Your task to perform on an android device: check battery use Image 0: 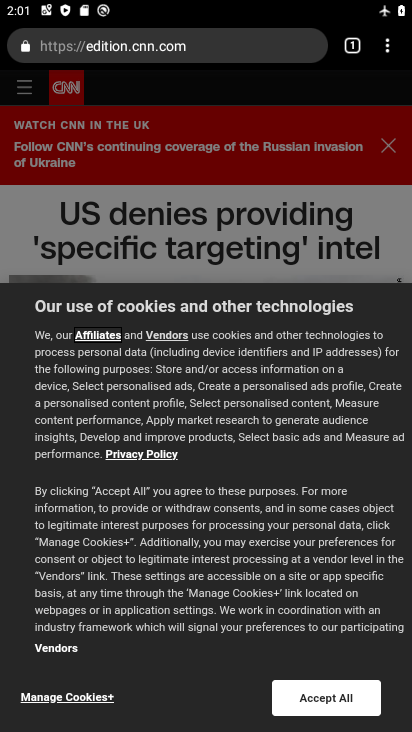
Step 0: press home button
Your task to perform on an android device: check battery use Image 1: 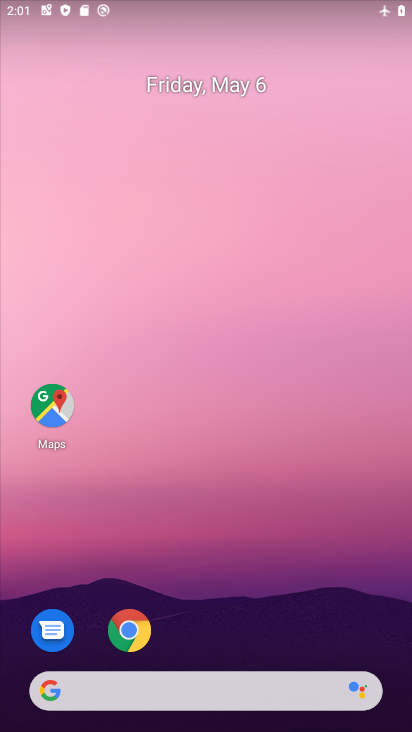
Step 1: drag from (220, 714) to (234, 113)
Your task to perform on an android device: check battery use Image 2: 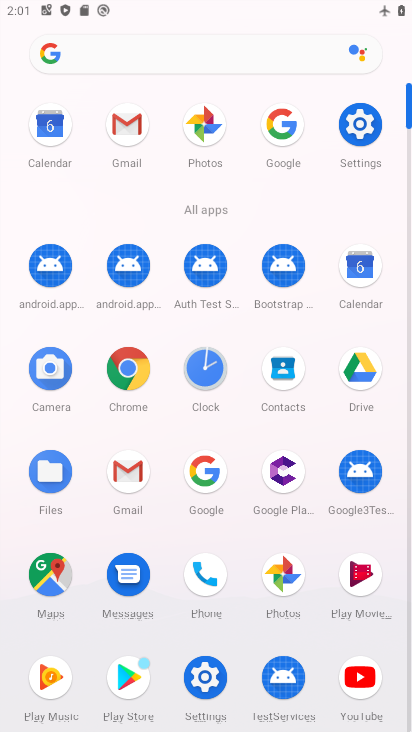
Step 2: click (356, 126)
Your task to perform on an android device: check battery use Image 3: 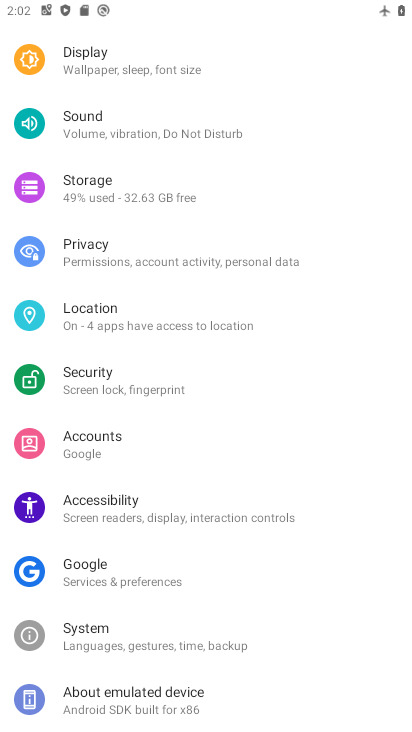
Step 3: drag from (176, 99) to (204, 417)
Your task to perform on an android device: check battery use Image 4: 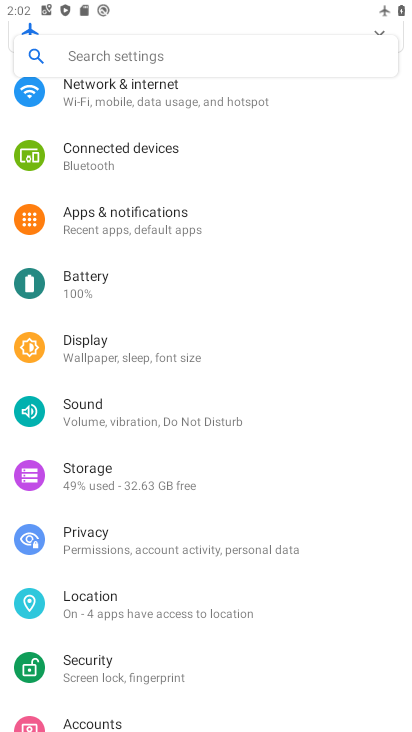
Step 4: click (115, 287)
Your task to perform on an android device: check battery use Image 5: 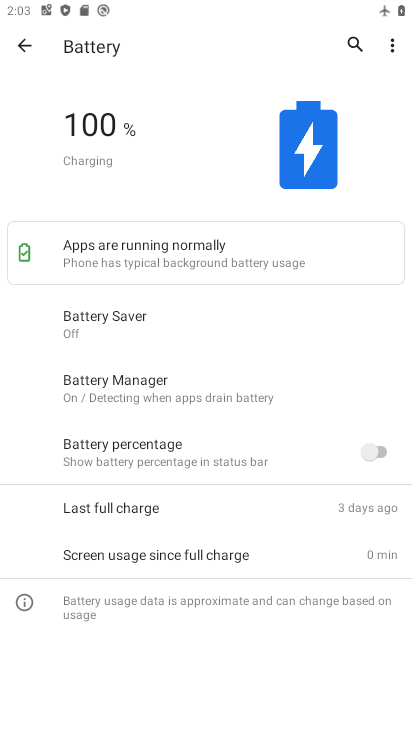
Step 5: task complete